Your task to perform on an android device: turn off location Image 0: 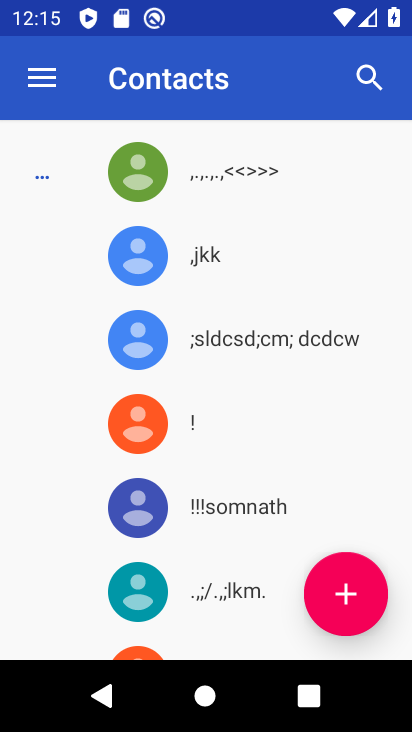
Step 0: press home button
Your task to perform on an android device: turn off location Image 1: 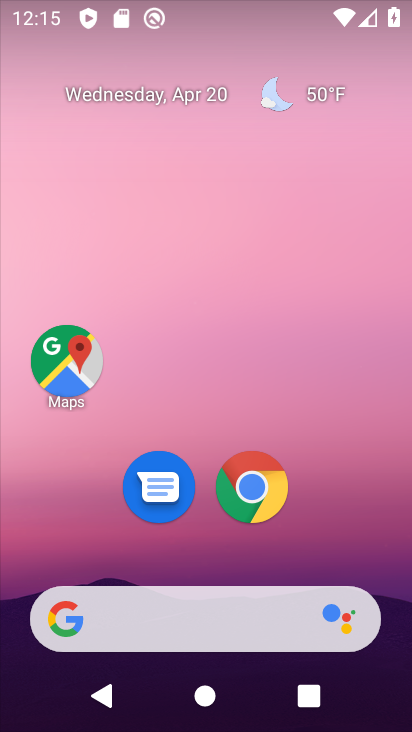
Step 1: drag from (390, 529) to (349, 237)
Your task to perform on an android device: turn off location Image 2: 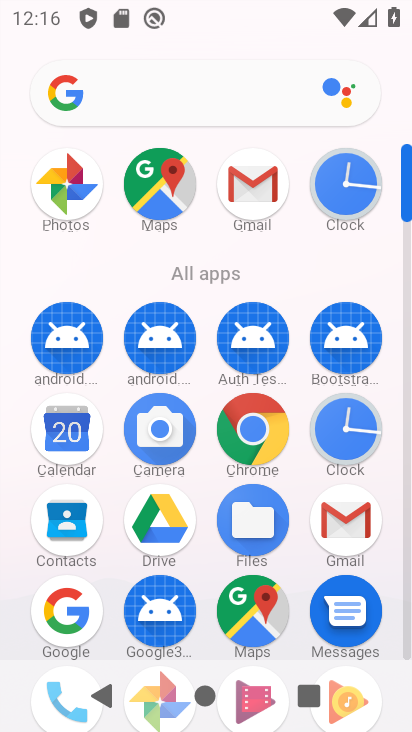
Step 2: click (409, 651)
Your task to perform on an android device: turn off location Image 3: 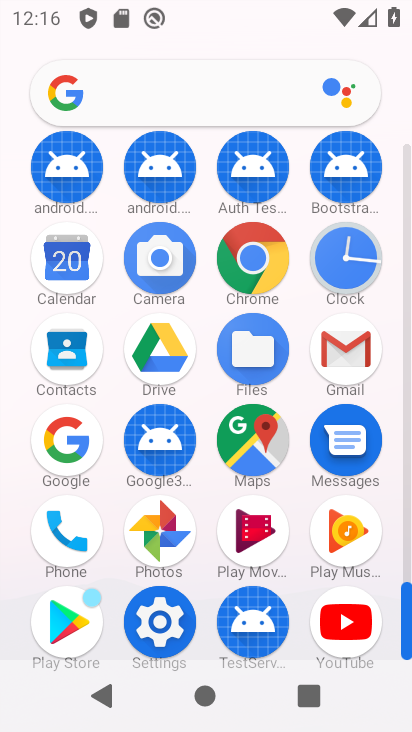
Step 3: click (182, 614)
Your task to perform on an android device: turn off location Image 4: 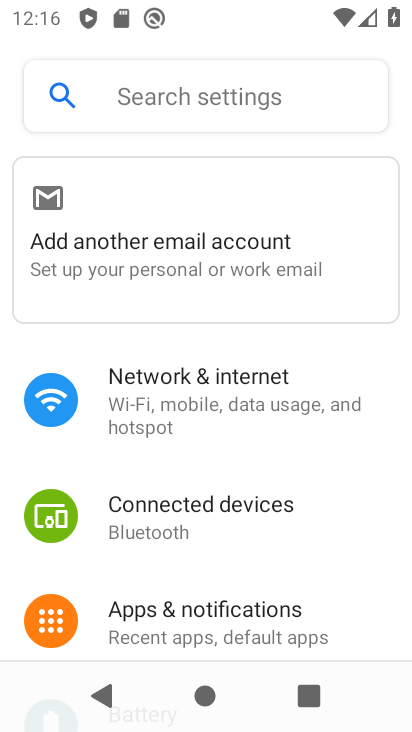
Step 4: drag from (319, 593) to (345, 231)
Your task to perform on an android device: turn off location Image 5: 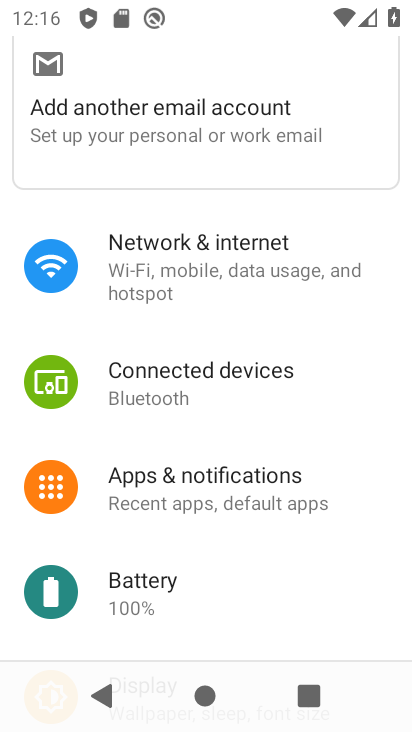
Step 5: drag from (330, 558) to (319, 157)
Your task to perform on an android device: turn off location Image 6: 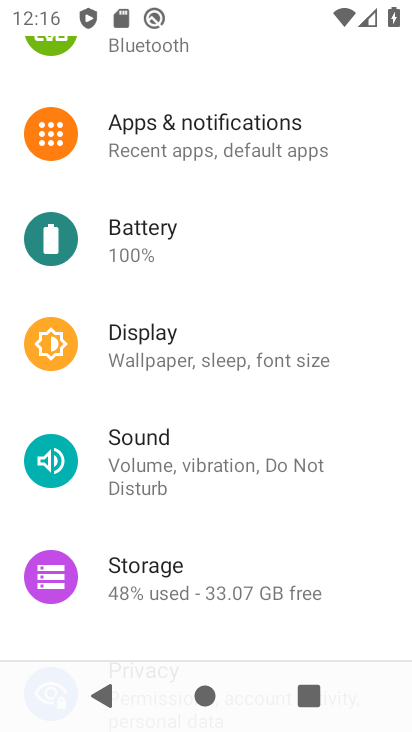
Step 6: drag from (269, 596) to (259, 309)
Your task to perform on an android device: turn off location Image 7: 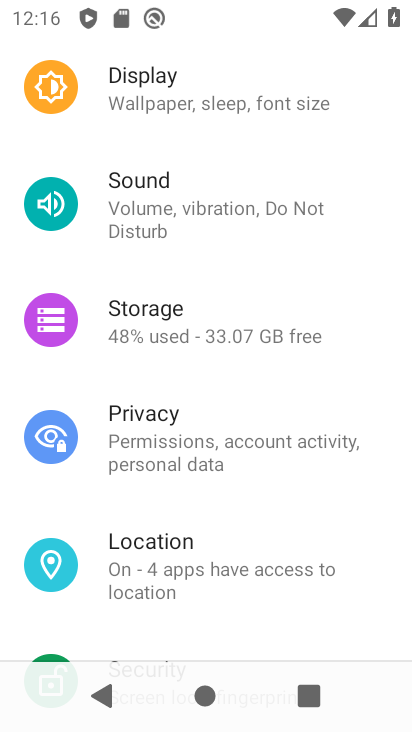
Step 7: click (255, 555)
Your task to perform on an android device: turn off location Image 8: 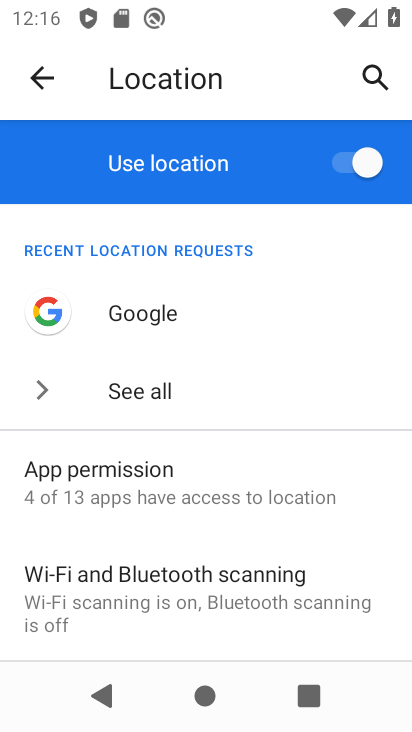
Step 8: drag from (255, 555) to (236, 348)
Your task to perform on an android device: turn off location Image 9: 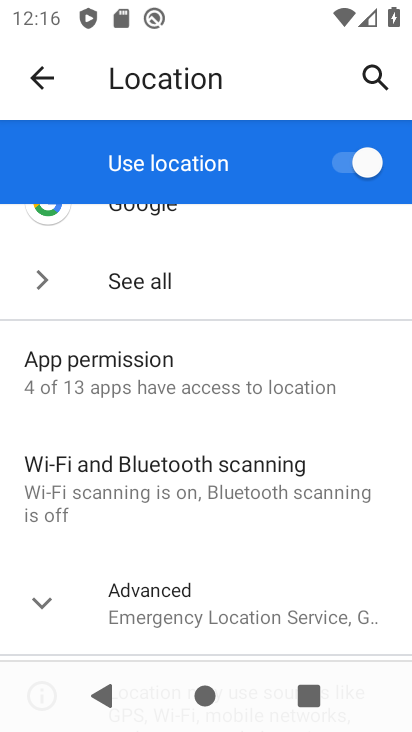
Step 9: click (353, 176)
Your task to perform on an android device: turn off location Image 10: 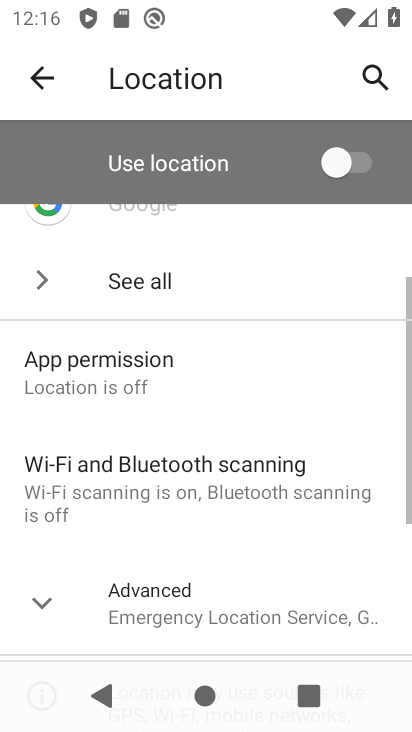
Step 10: task complete